Your task to perform on an android device: change the clock display to digital Image 0: 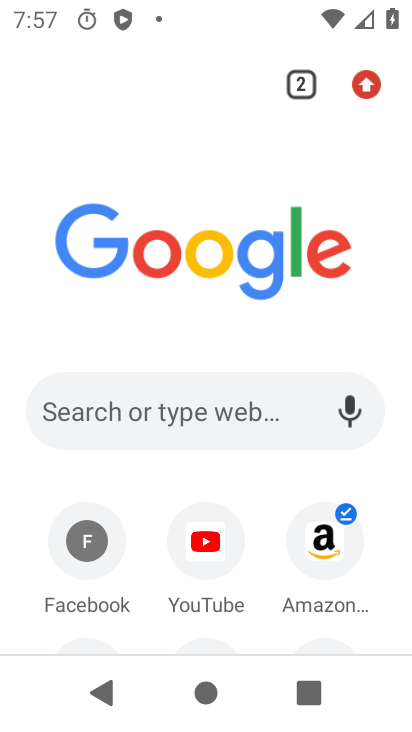
Step 0: press home button
Your task to perform on an android device: change the clock display to digital Image 1: 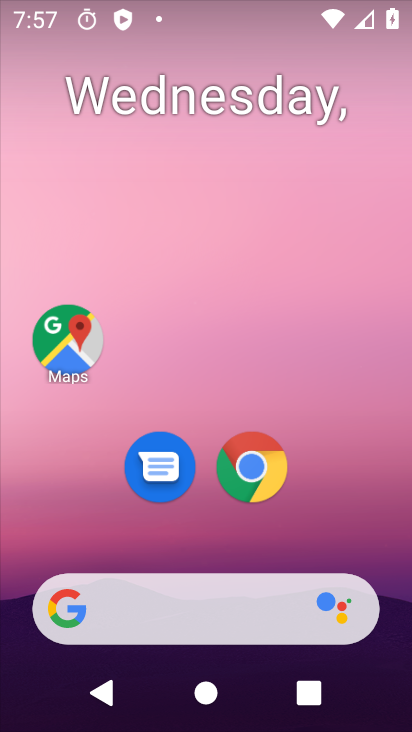
Step 1: drag from (367, 523) to (374, 138)
Your task to perform on an android device: change the clock display to digital Image 2: 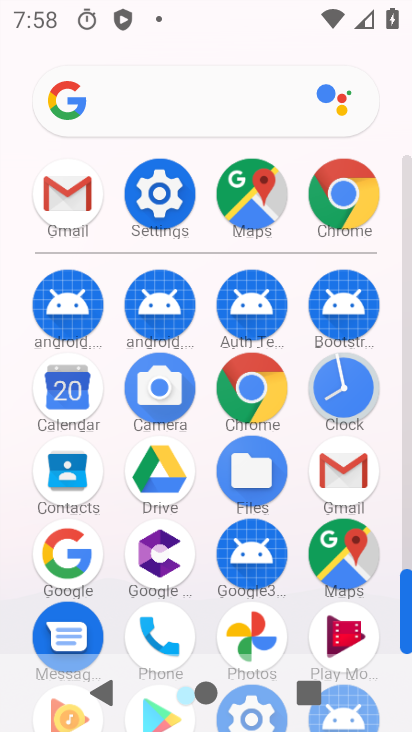
Step 2: click (348, 390)
Your task to perform on an android device: change the clock display to digital Image 3: 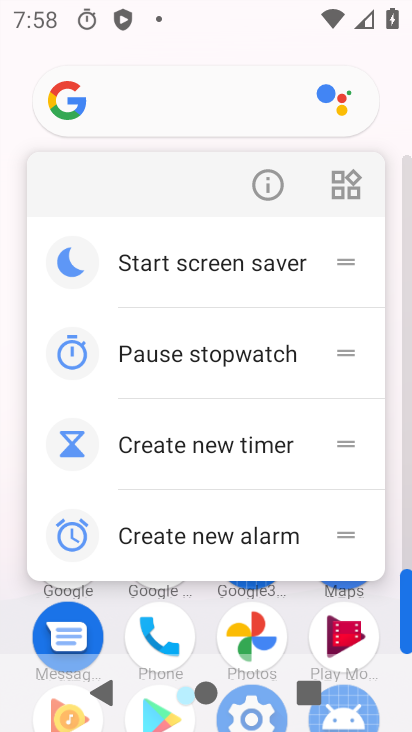
Step 3: press back button
Your task to perform on an android device: change the clock display to digital Image 4: 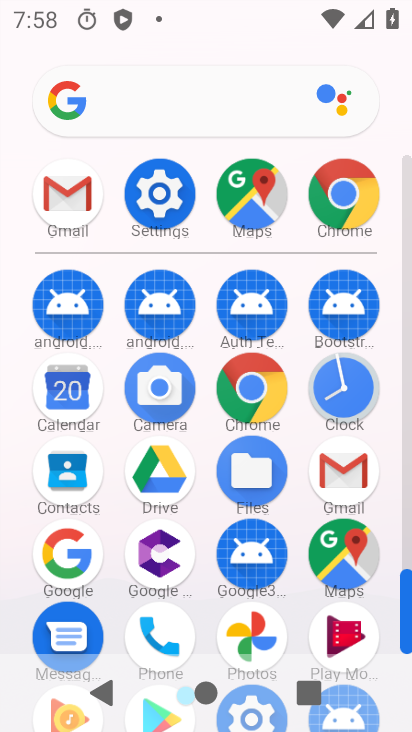
Step 4: click (333, 390)
Your task to perform on an android device: change the clock display to digital Image 5: 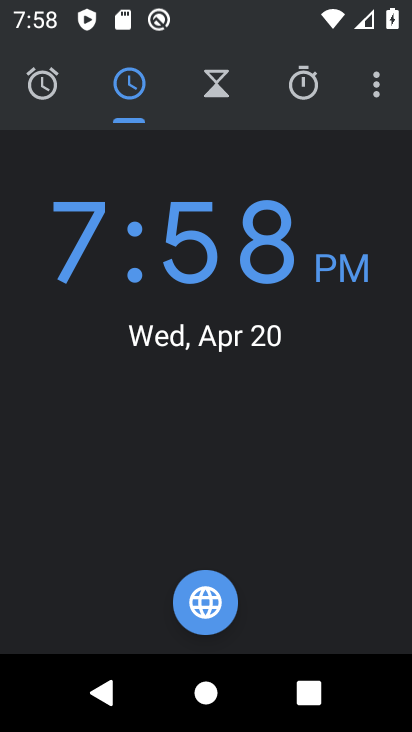
Step 5: click (375, 79)
Your task to perform on an android device: change the clock display to digital Image 6: 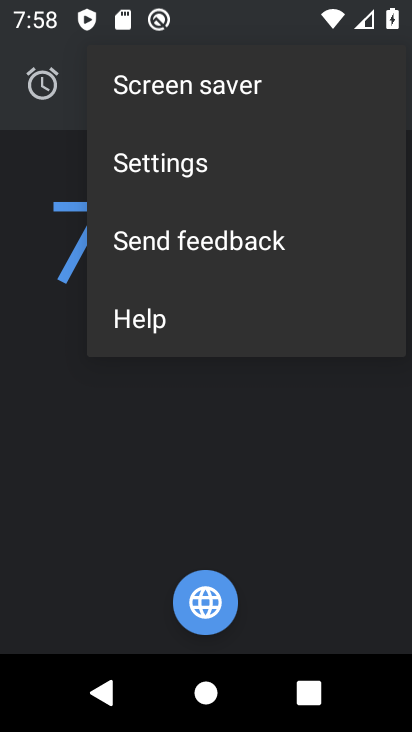
Step 6: click (148, 159)
Your task to perform on an android device: change the clock display to digital Image 7: 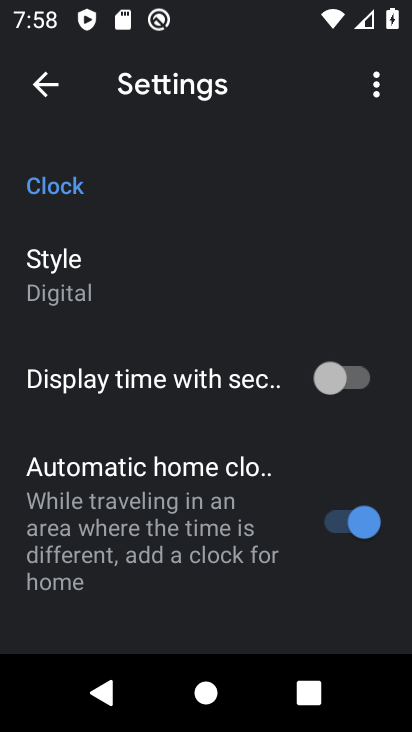
Step 7: click (50, 261)
Your task to perform on an android device: change the clock display to digital Image 8: 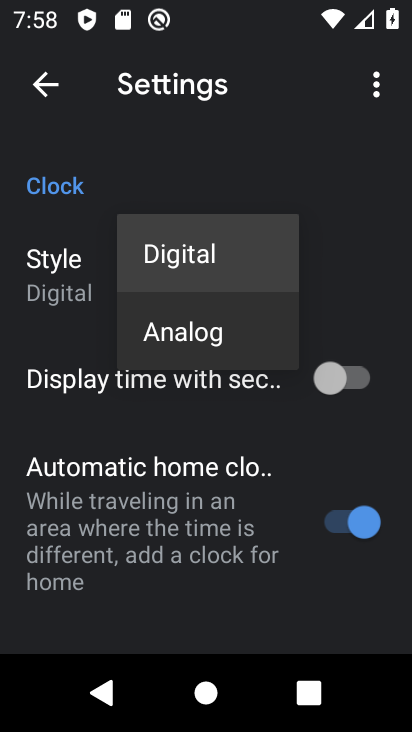
Step 8: click (154, 249)
Your task to perform on an android device: change the clock display to digital Image 9: 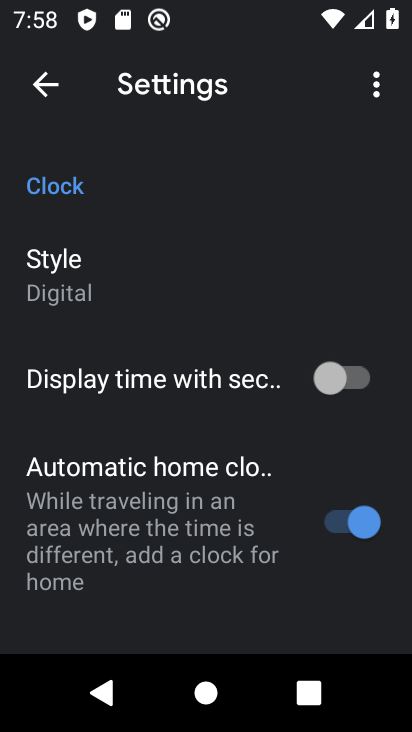
Step 9: task complete